Your task to perform on an android device: Is it going to rain tomorrow? Image 0: 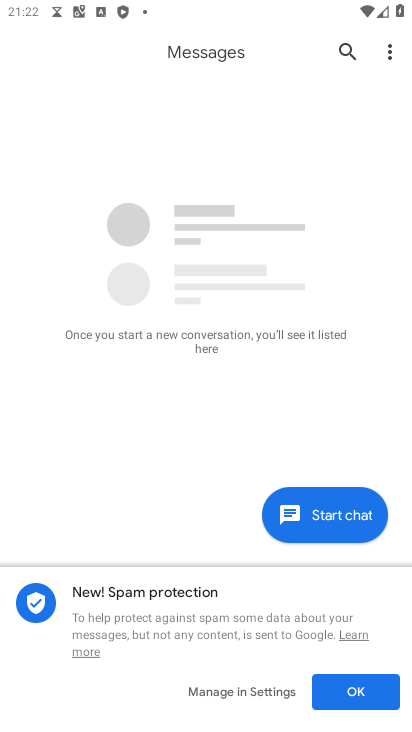
Step 0: drag from (395, 698) to (353, 382)
Your task to perform on an android device: Is it going to rain tomorrow? Image 1: 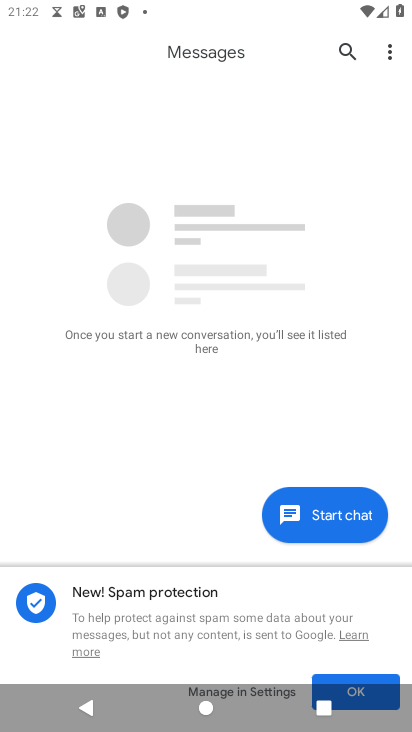
Step 1: press home button
Your task to perform on an android device: Is it going to rain tomorrow? Image 2: 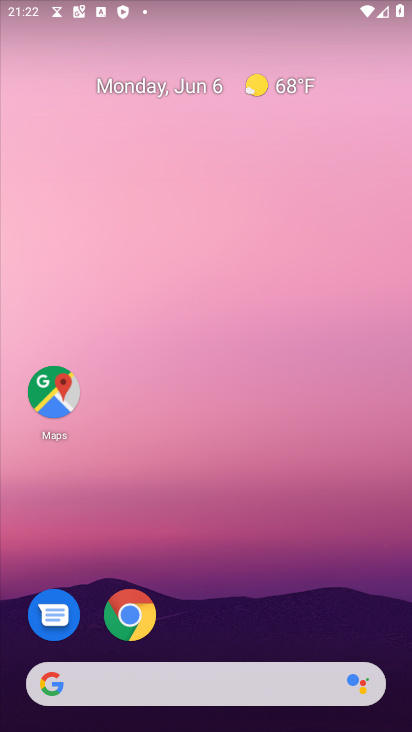
Step 2: drag from (156, 268) to (411, 267)
Your task to perform on an android device: Is it going to rain tomorrow? Image 3: 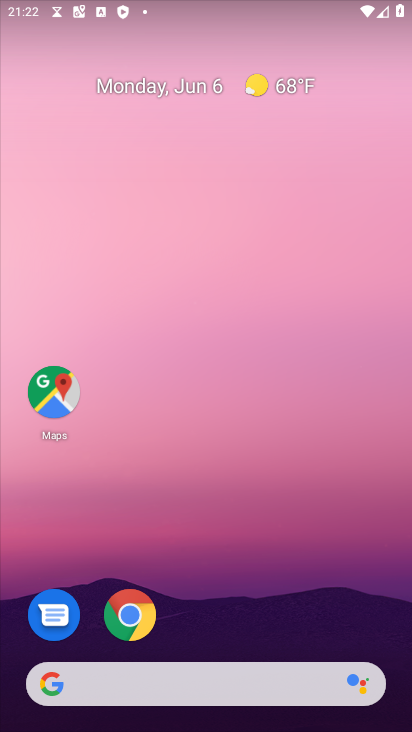
Step 3: click (288, 78)
Your task to perform on an android device: Is it going to rain tomorrow? Image 4: 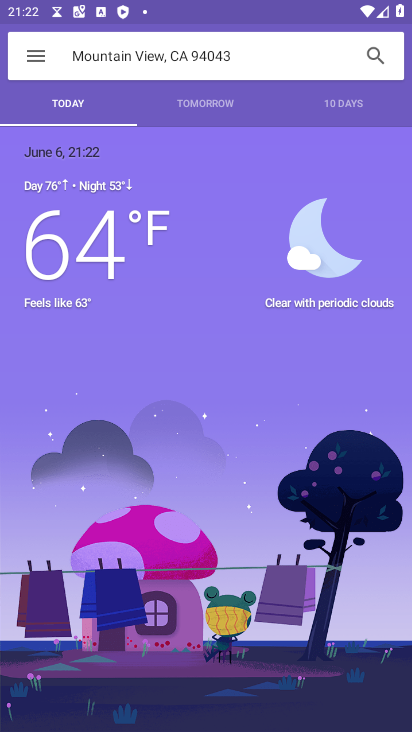
Step 4: click (190, 98)
Your task to perform on an android device: Is it going to rain tomorrow? Image 5: 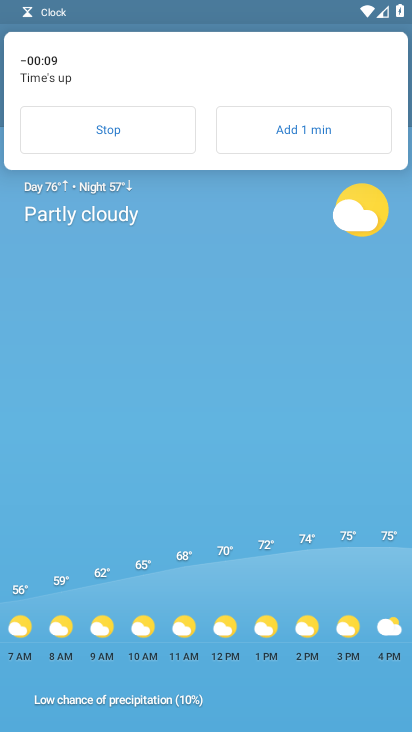
Step 5: click (162, 120)
Your task to perform on an android device: Is it going to rain tomorrow? Image 6: 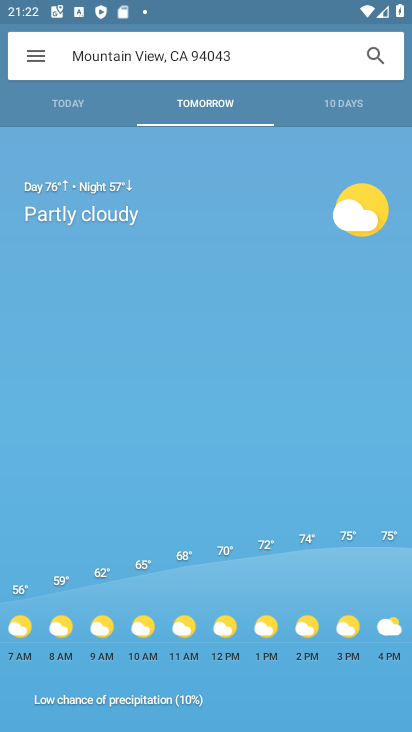
Step 6: task complete